Your task to perform on an android device: Show me popular games on the Play Store Image 0: 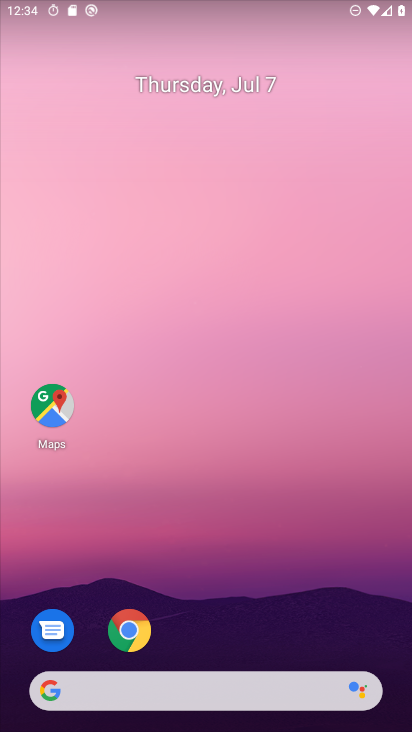
Step 0: drag from (227, 644) to (303, 74)
Your task to perform on an android device: Show me popular games on the Play Store Image 1: 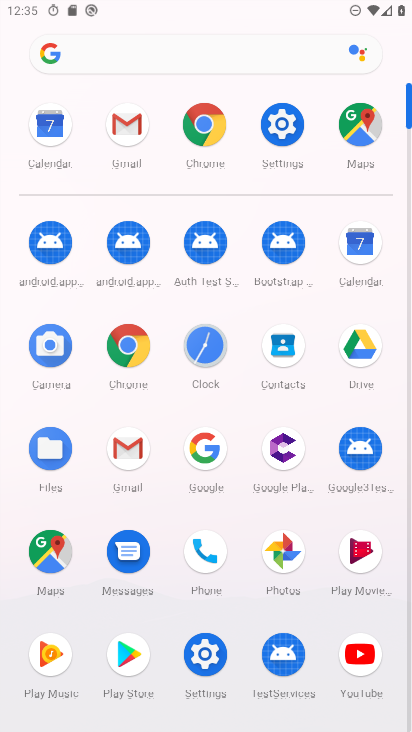
Step 1: click (119, 654)
Your task to perform on an android device: Show me popular games on the Play Store Image 2: 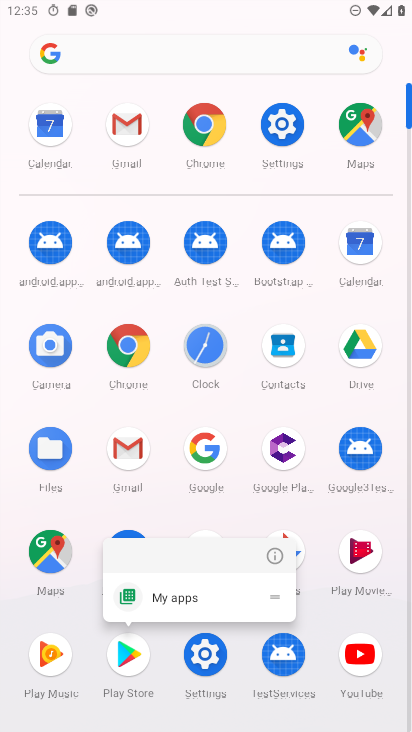
Step 2: click (117, 654)
Your task to perform on an android device: Show me popular games on the Play Store Image 3: 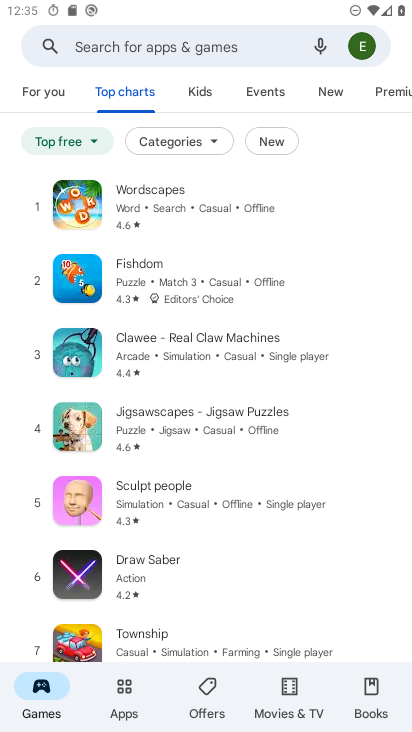
Step 3: task complete